Your task to perform on an android device: uninstall "Facebook Lite" Image 0: 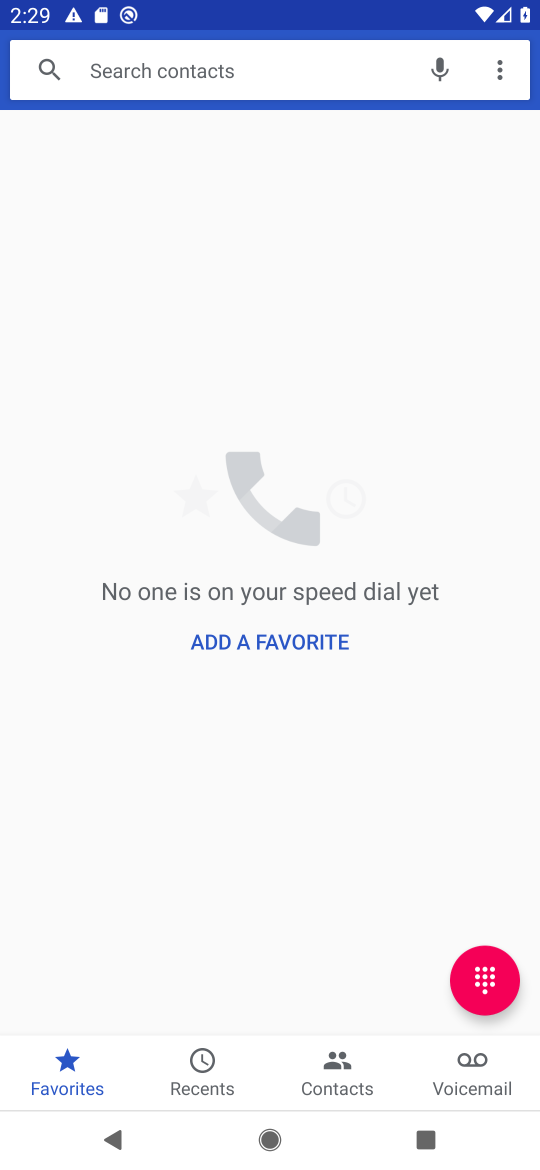
Step 0: press home button
Your task to perform on an android device: uninstall "Facebook Lite" Image 1: 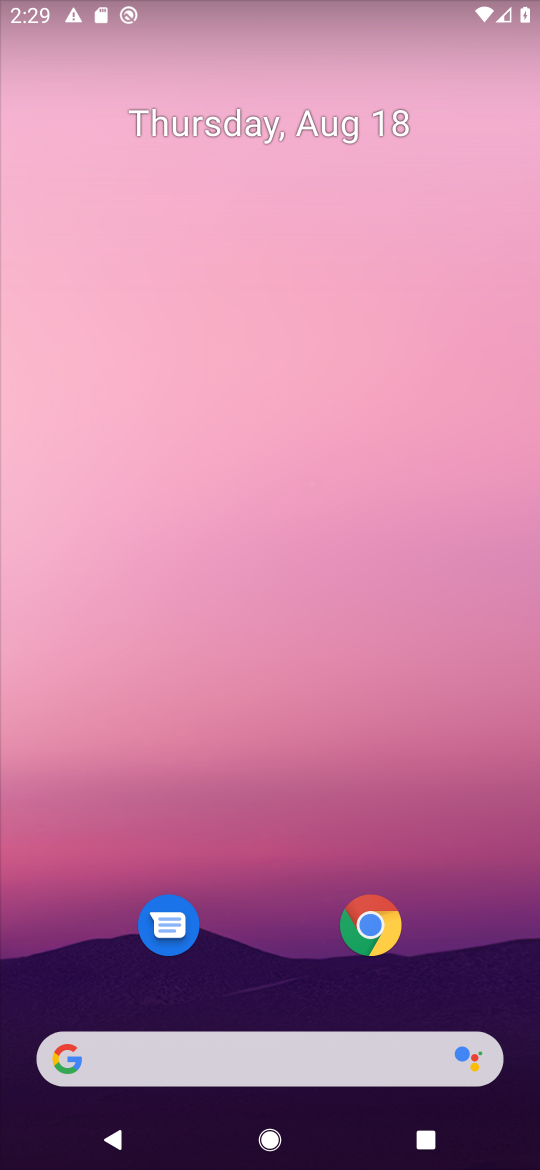
Step 1: drag from (271, 765) to (365, 137)
Your task to perform on an android device: uninstall "Facebook Lite" Image 2: 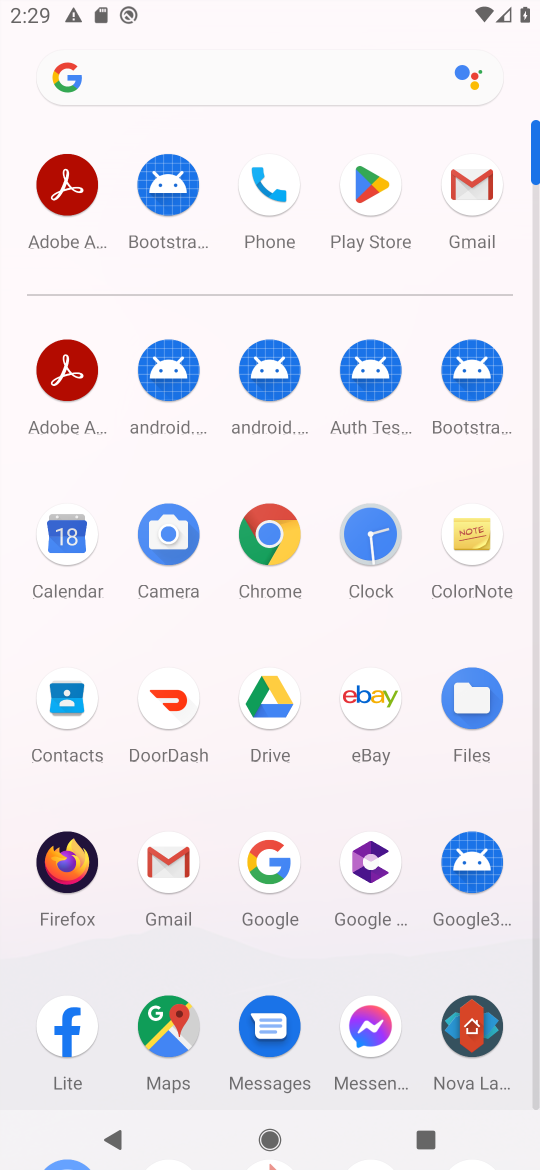
Step 2: click (366, 183)
Your task to perform on an android device: uninstall "Facebook Lite" Image 3: 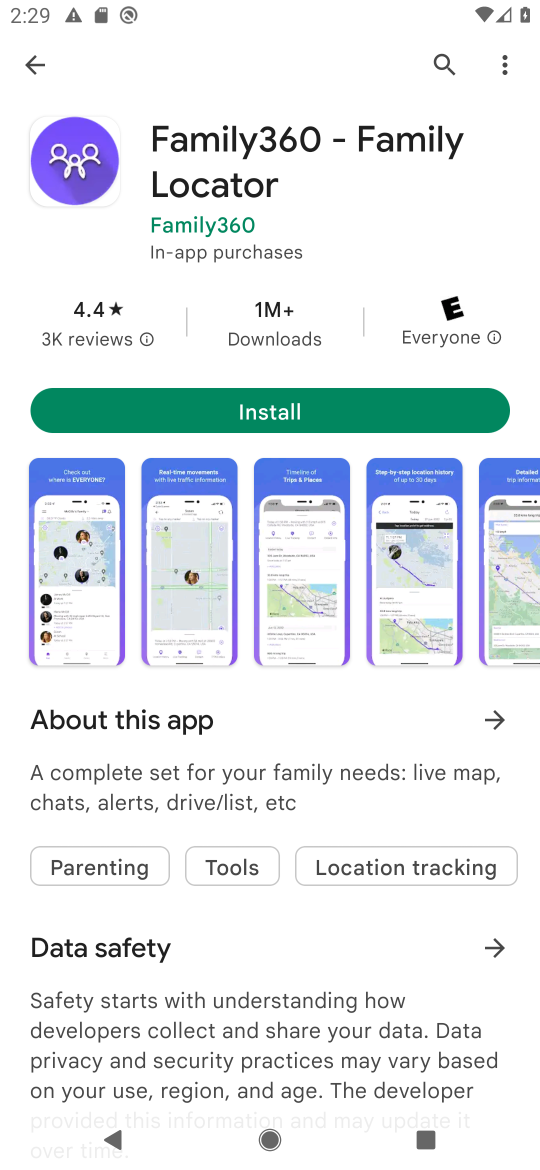
Step 3: click (31, 52)
Your task to perform on an android device: uninstall "Facebook Lite" Image 4: 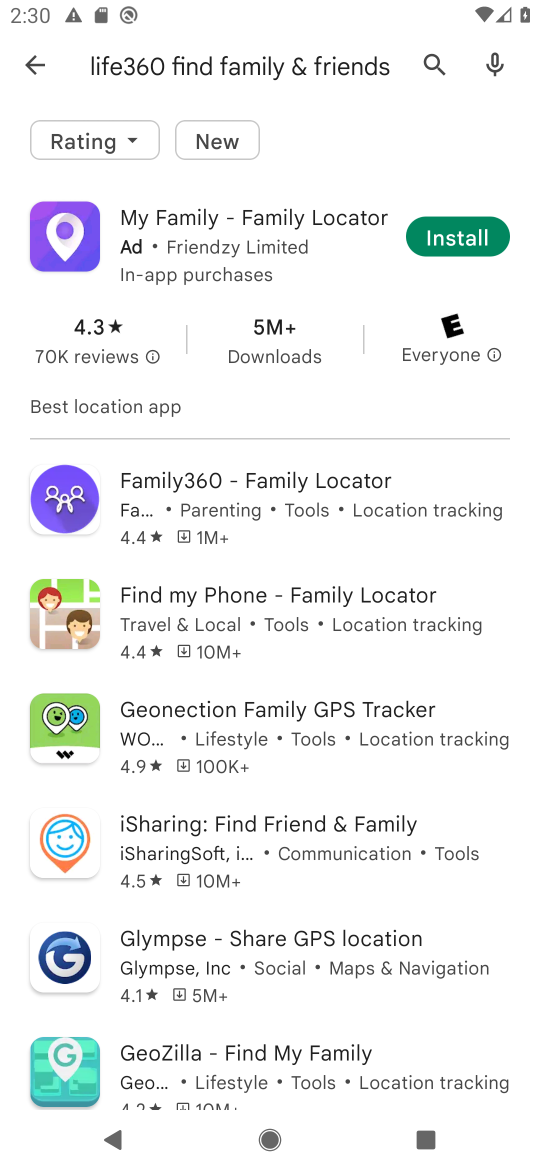
Step 4: click (32, 62)
Your task to perform on an android device: uninstall "Facebook Lite" Image 5: 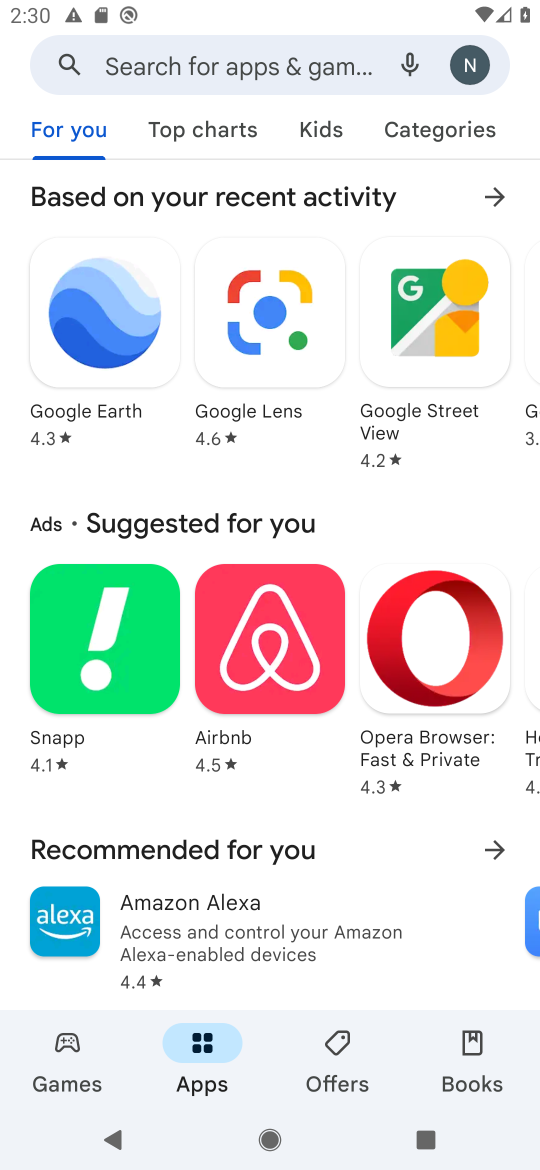
Step 5: click (279, 55)
Your task to perform on an android device: uninstall "Facebook Lite" Image 6: 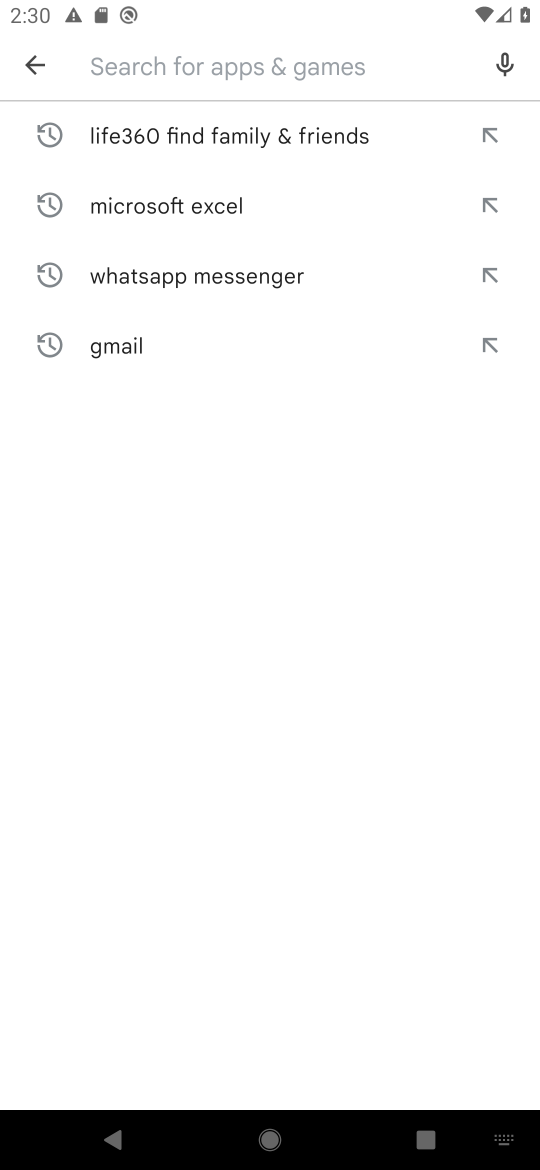
Step 6: type "Facebook Lite"
Your task to perform on an android device: uninstall "Facebook Lite" Image 7: 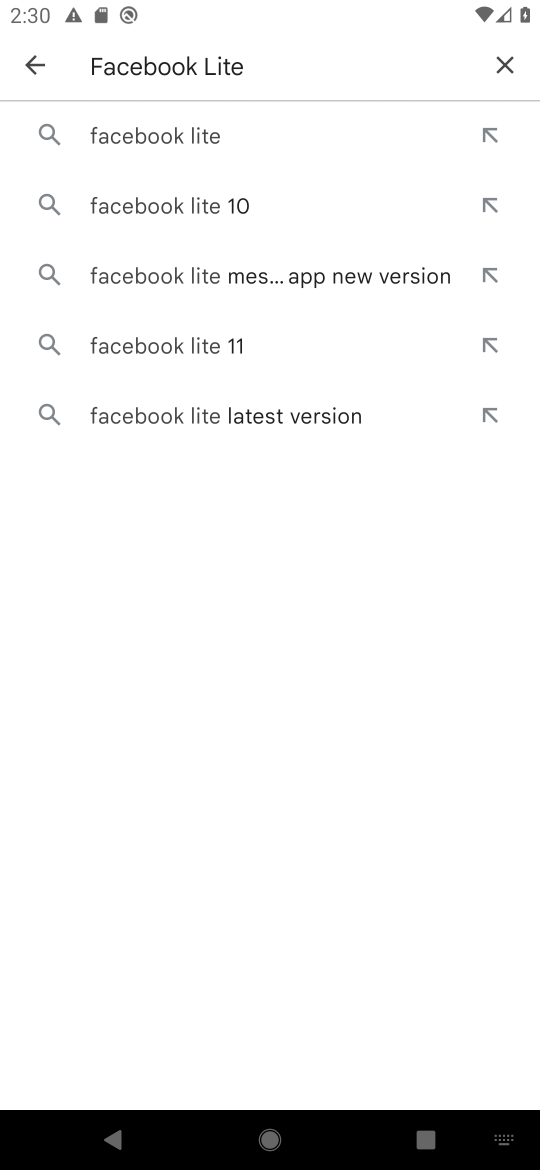
Step 7: click (180, 133)
Your task to perform on an android device: uninstall "Facebook Lite" Image 8: 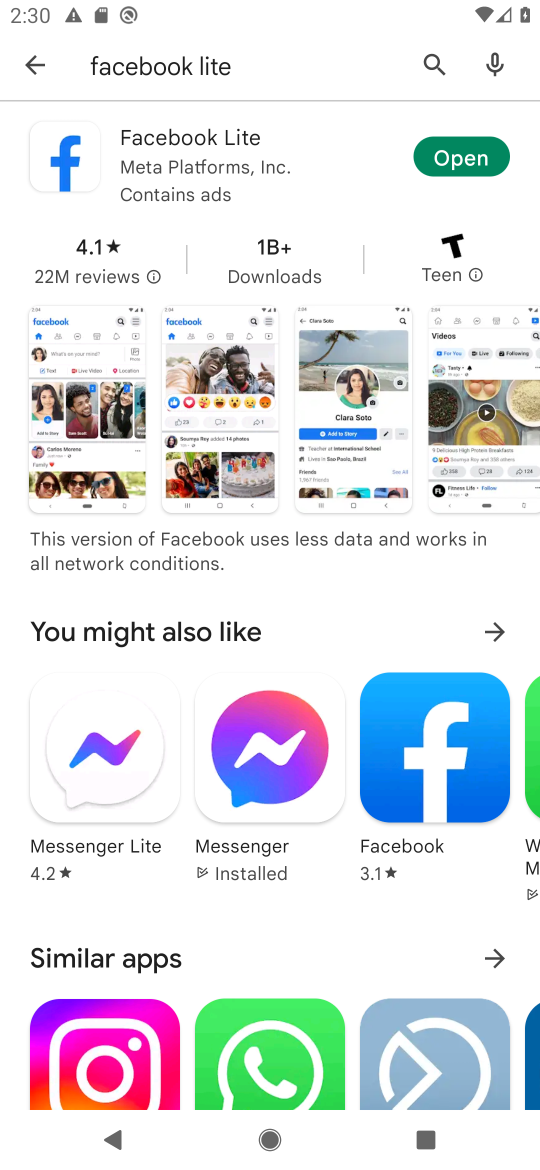
Step 8: click (467, 156)
Your task to perform on an android device: uninstall "Facebook Lite" Image 9: 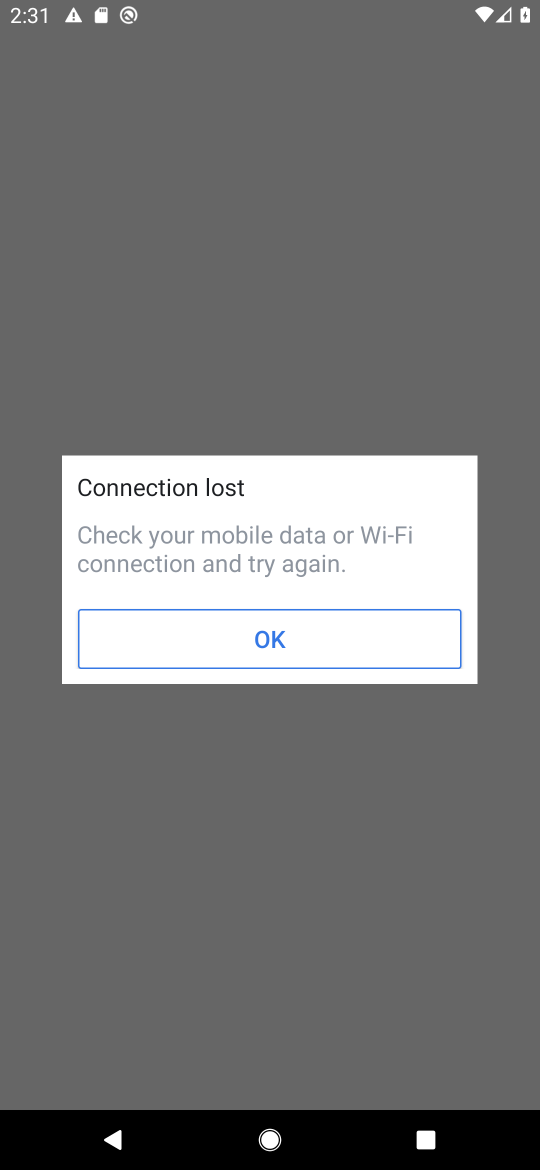
Step 9: task complete